Your task to perform on an android device: see tabs open on other devices in the chrome app Image 0: 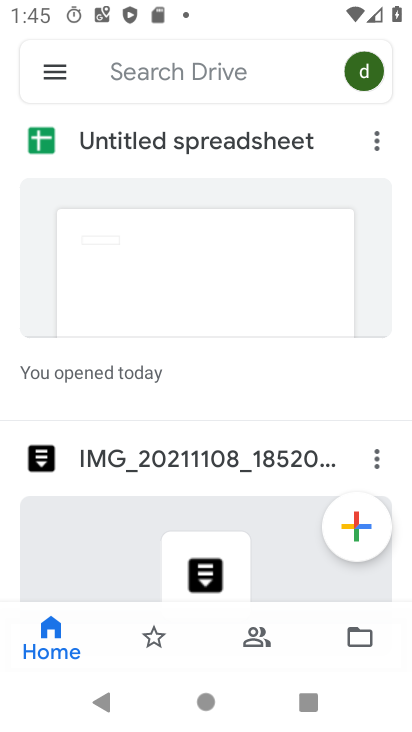
Step 0: press home button
Your task to perform on an android device: see tabs open on other devices in the chrome app Image 1: 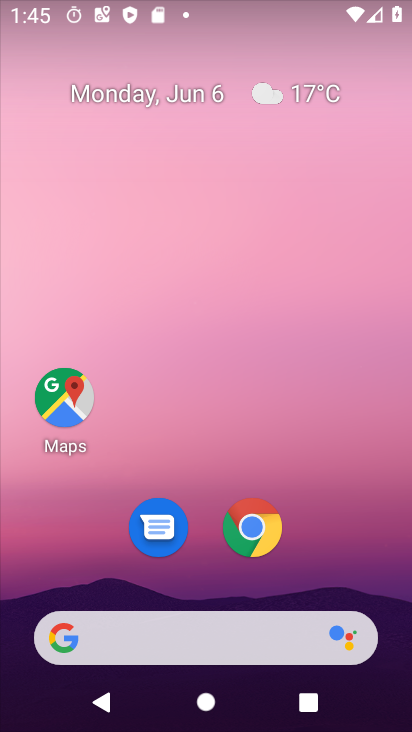
Step 1: click (252, 533)
Your task to perform on an android device: see tabs open on other devices in the chrome app Image 2: 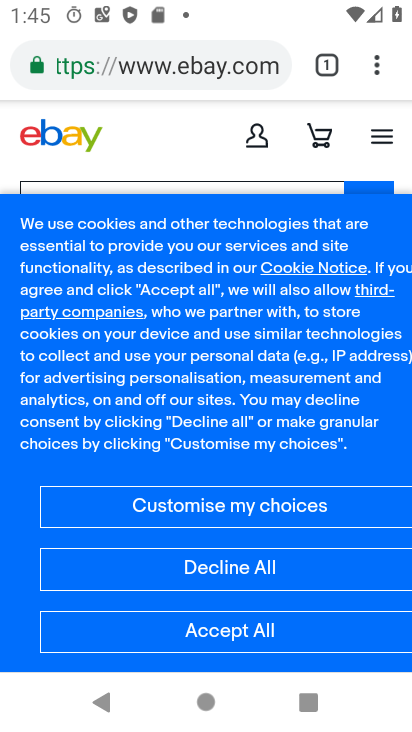
Step 2: click (375, 69)
Your task to perform on an android device: see tabs open on other devices in the chrome app Image 3: 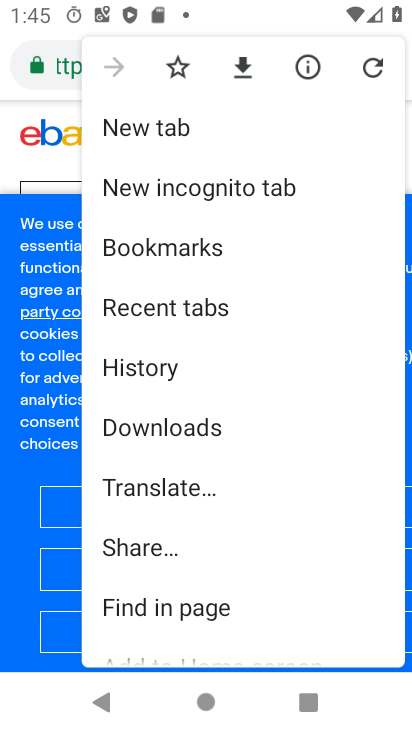
Step 3: click (166, 307)
Your task to perform on an android device: see tabs open on other devices in the chrome app Image 4: 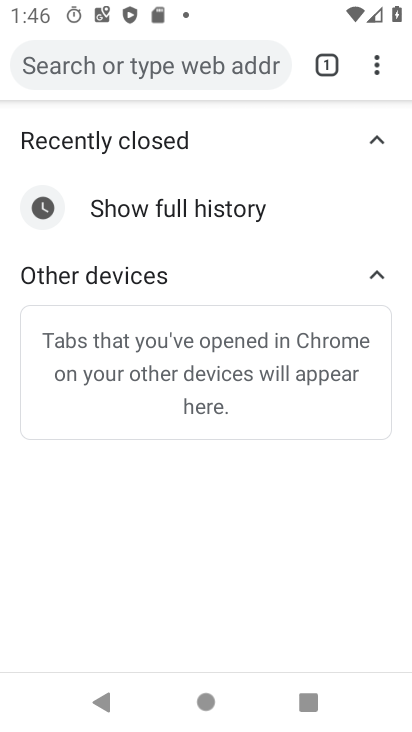
Step 4: task complete